Your task to perform on an android device: Go to Yahoo.com Image 0: 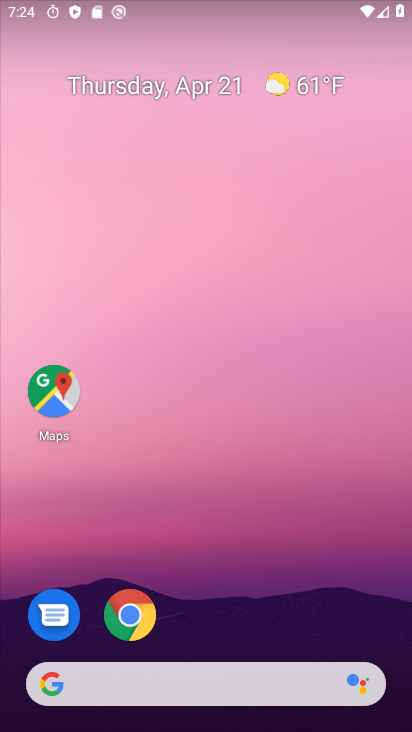
Step 0: drag from (201, 632) to (6, 54)
Your task to perform on an android device: Go to Yahoo.com Image 1: 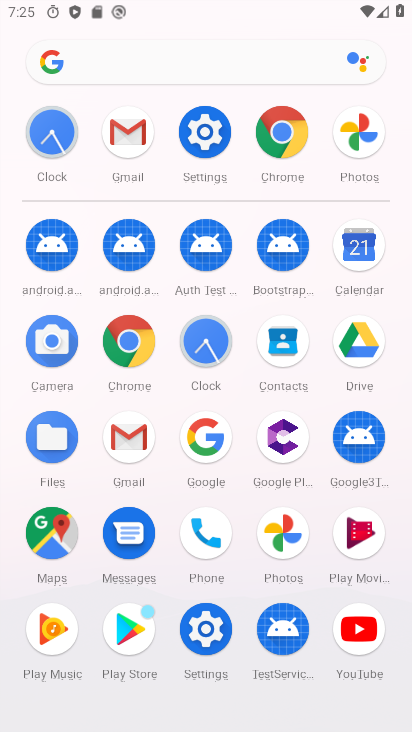
Step 1: click (136, 334)
Your task to perform on an android device: Go to Yahoo.com Image 2: 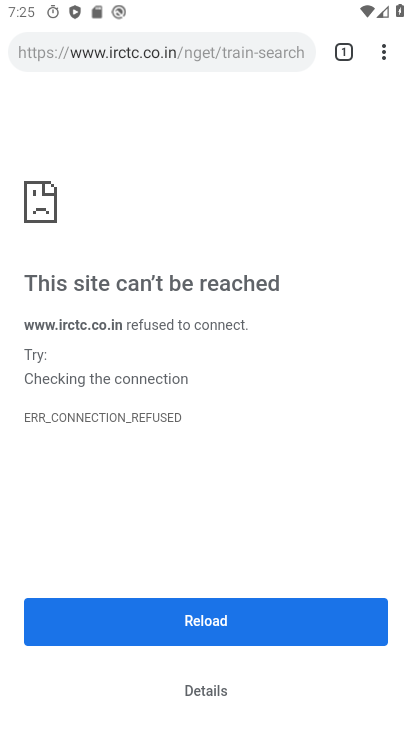
Step 2: click (248, 47)
Your task to perform on an android device: Go to Yahoo.com Image 3: 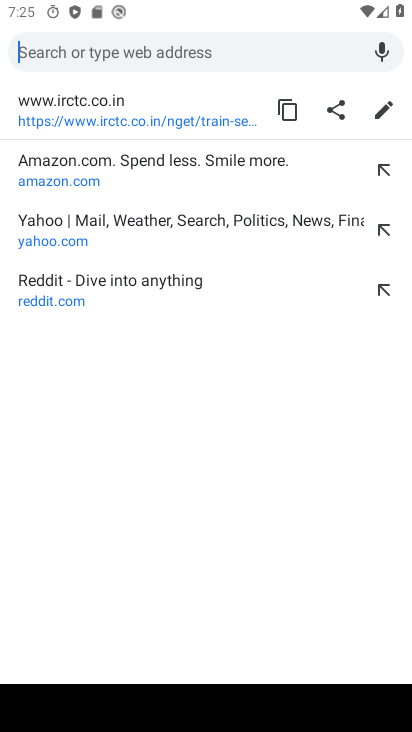
Step 3: type "yahoo.com"
Your task to perform on an android device: Go to Yahoo.com Image 4: 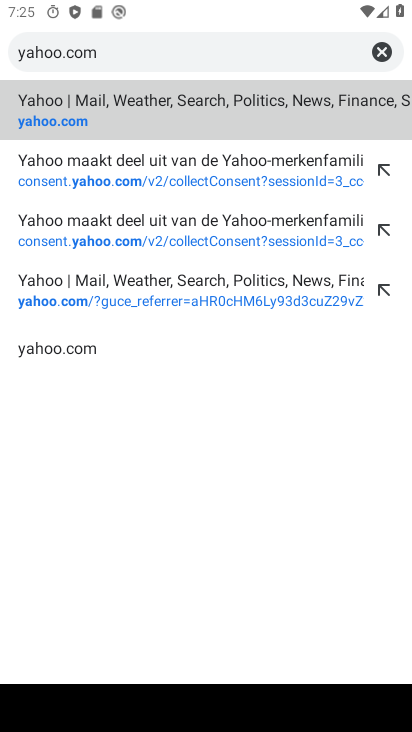
Step 4: click (56, 98)
Your task to perform on an android device: Go to Yahoo.com Image 5: 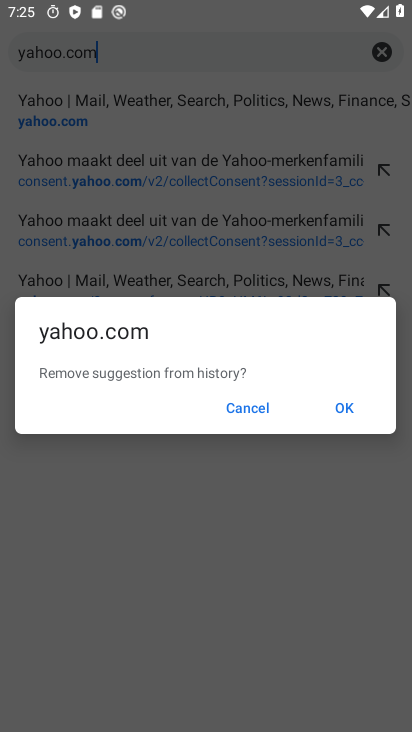
Step 5: click (343, 403)
Your task to perform on an android device: Go to Yahoo.com Image 6: 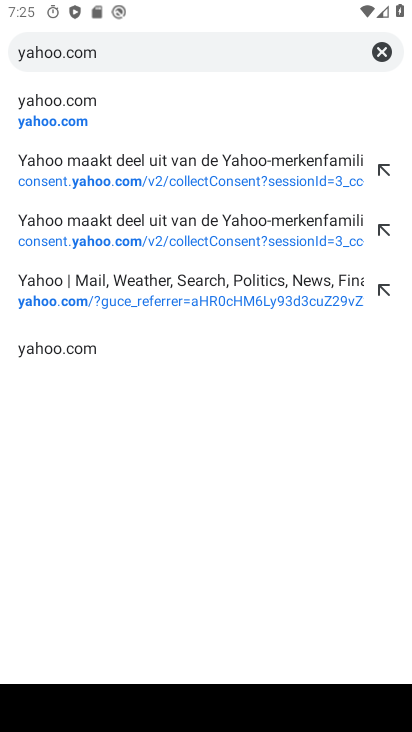
Step 6: task complete